Your task to perform on an android device: Open Youtube and go to the subscriptions tab Image 0: 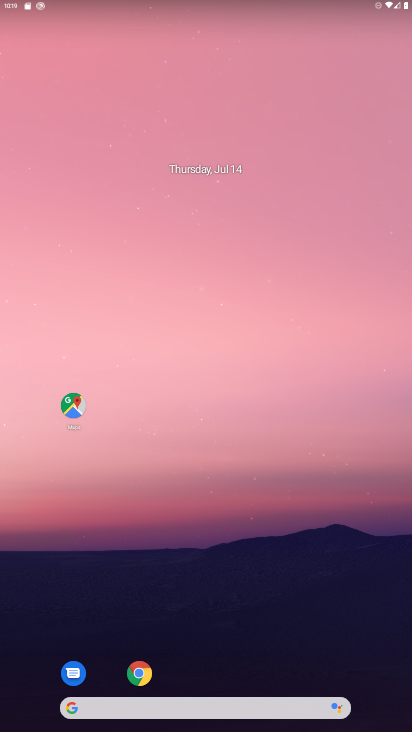
Step 0: drag from (243, 582) to (189, 119)
Your task to perform on an android device: Open Youtube and go to the subscriptions tab Image 1: 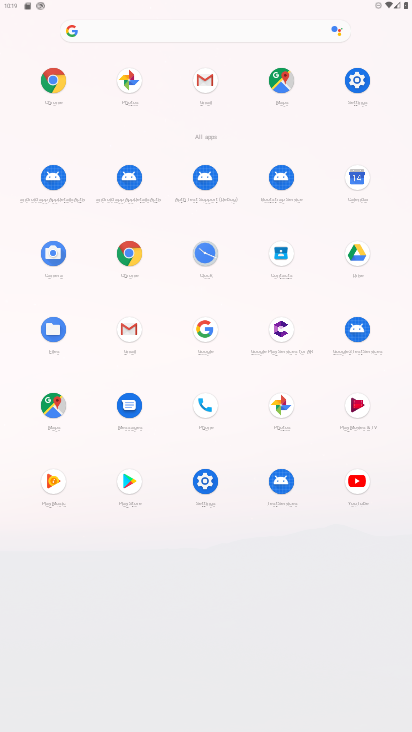
Step 1: click (357, 481)
Your task to perform on an android device: Open Youtube and go to the subscriptions tab Image 2: 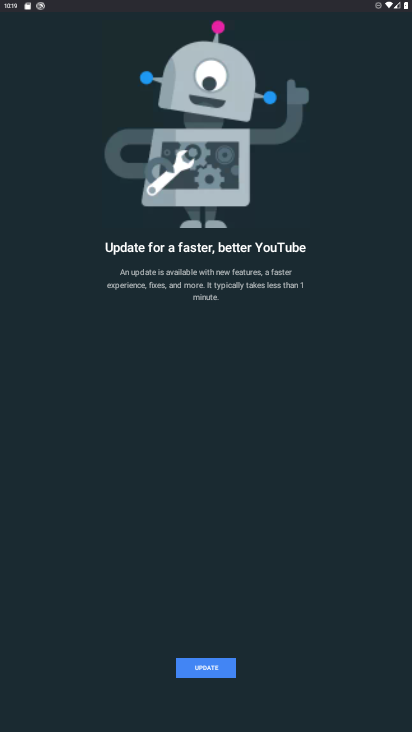
Step 2: click (207, 669)
Your task to perform on an android device: Open Youtube and go to the subscriptions tab Image 3: 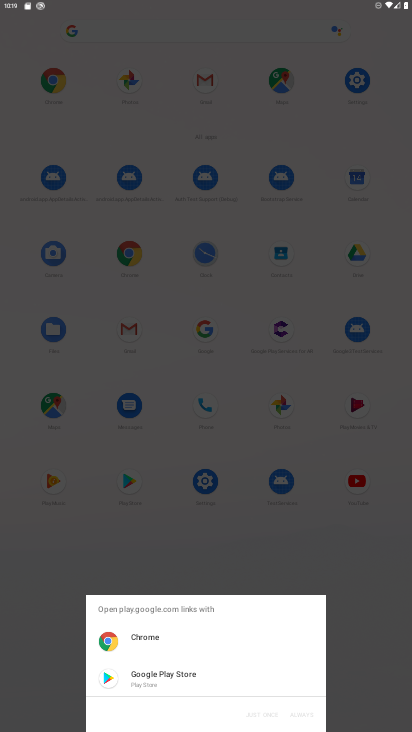
Step 3: click (140, 674)
Your task to perform on an android device: Open Youtube and go to the subscriptions tab Image 4: 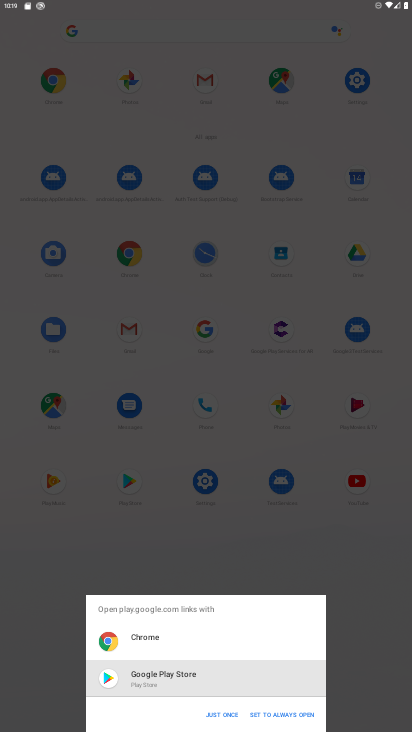
Step 4: click (220, 711)
Your task to perform on an android device: Open Youtube and go to the subscriptions tab Image 5: 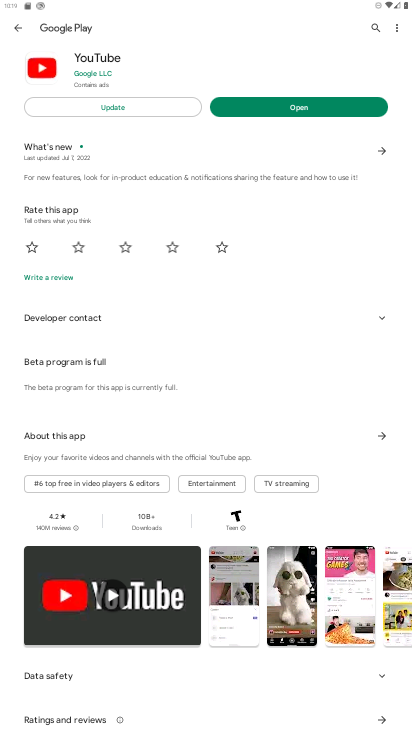
Step 5: click (132, 102)
Your task to perform on an android device: Open Youtube and go to the subscriptions tab Image 6: 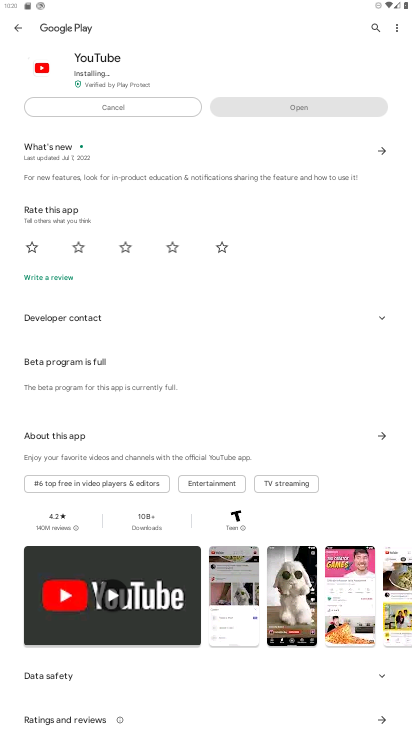
Step 6: click (132, 102)
Your task to perform on an android device: Open Youtube and go to the subscriptions tab Image 7: 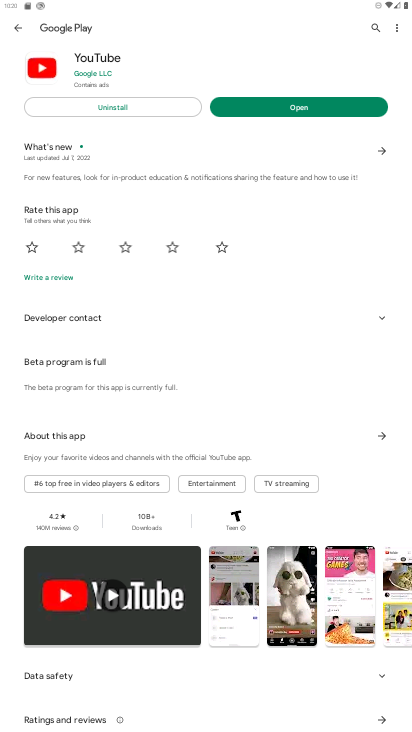
Step 7: click (256, 99)
Your task to perform on an android device: Open Youtube and go to the subscriptions tab Image 8: 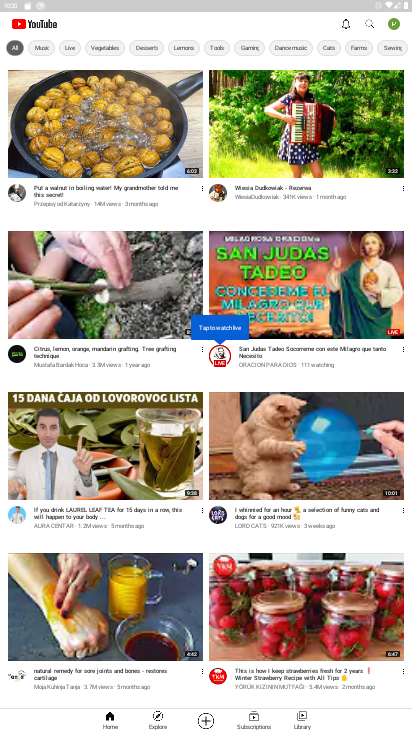
Step 8: click (260, 721)
Your task to perform on an android device: Open Youtube and go to the subscriptions tab Image 9: 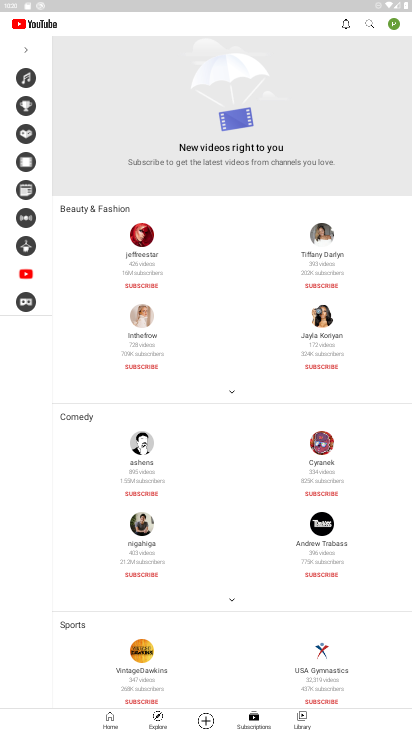
Step 9: task complete